Your task to perform on an android device: set the timer Image 0: 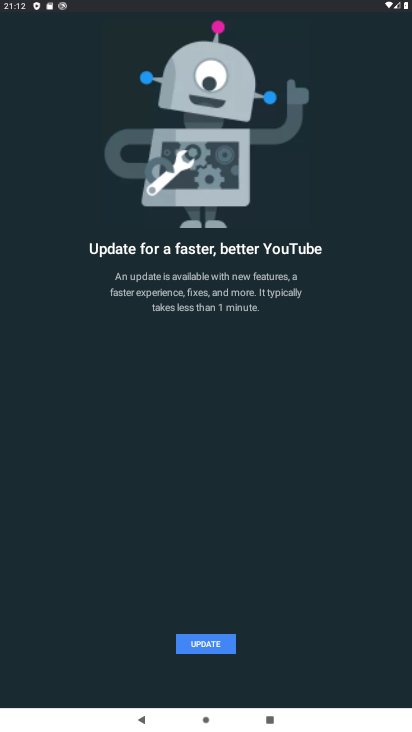
Step 0: press home button
Your task to perform on an android device: set the timer Image 1: 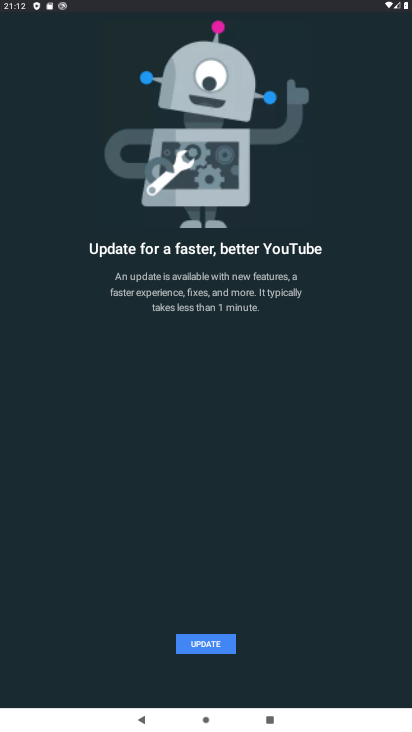
Step 1: press home button
Your task to perform on an android device: set the timer Image 2: 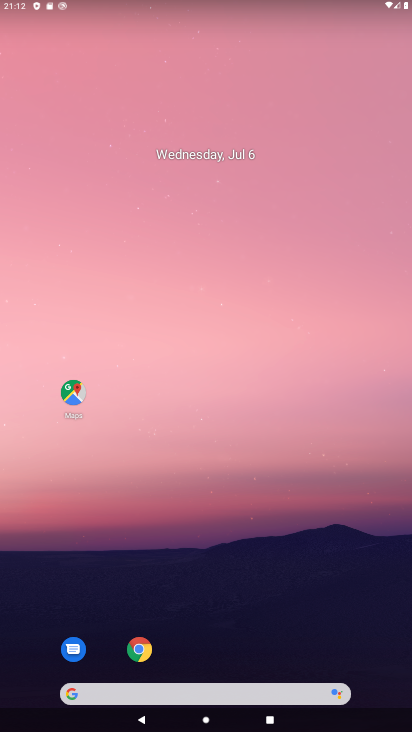
Step 2: drag from (218, 660) to (250, 326)
Your task to perform on an android device: set the timer Image 3: 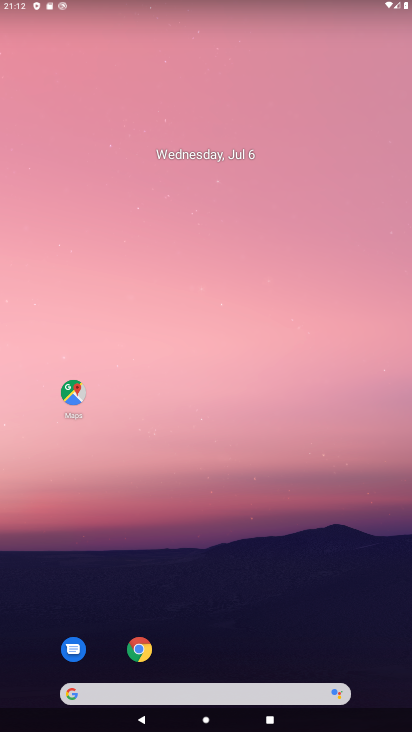
Step 3: drag from (198, 639) to (322, 276)
Your task to perform on an android device: set the timer Image 4: 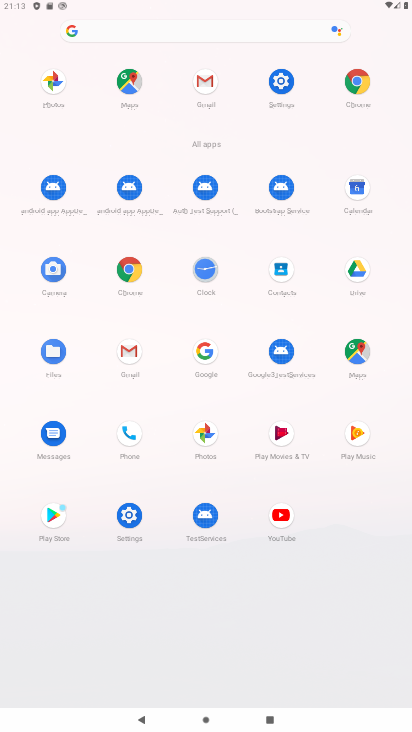
Step 4: click (190, 281)
Your task to perform on an android device: set the timer Image 5: 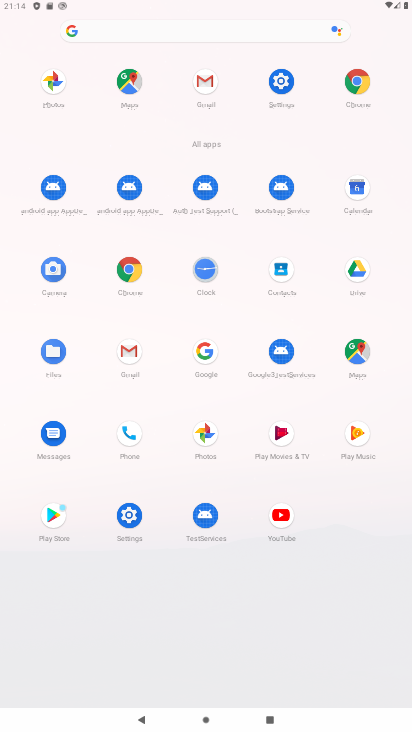
Step 5: click (203, 270)
Your task to perform on an android device: set the timer Image 6: 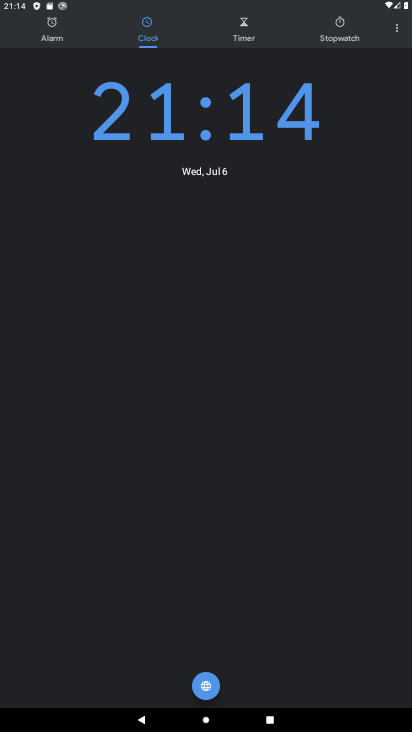
Step 6: click (254, 47)
Your task to perform on an android device: set the timer Image 7: 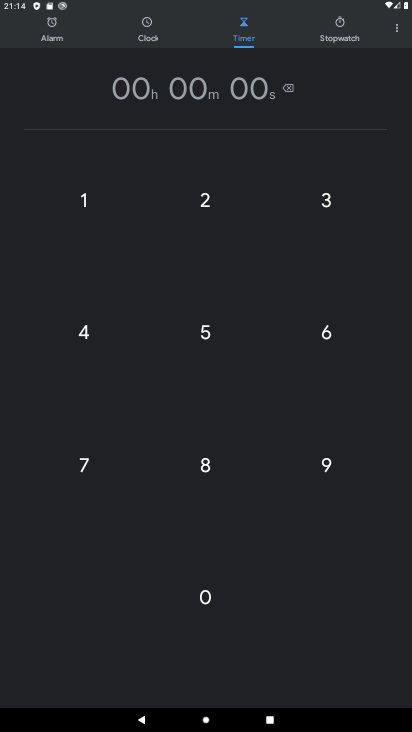
Step 7: click (248, 305)
Your task to perform on an android device: set the timer Image 8: 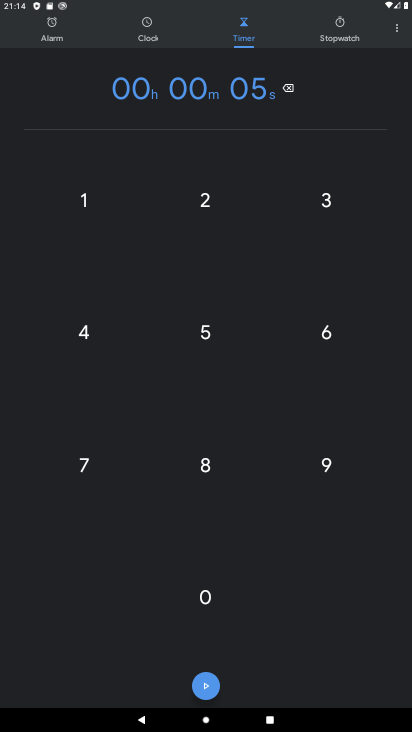
Step 8: click (317, 326)
Your task to perform on an android device: set the timer Image 9: 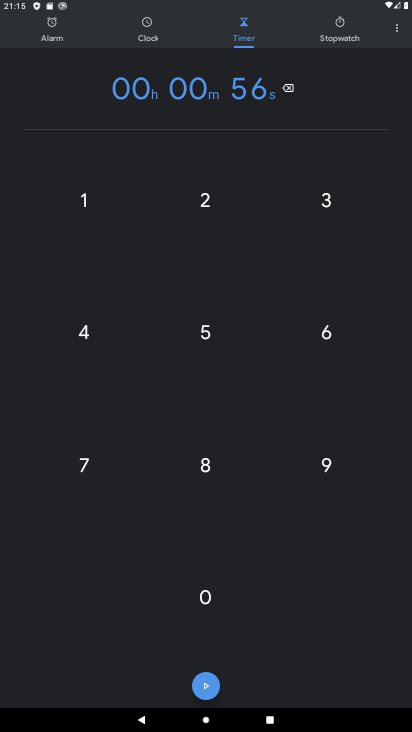
Step 9: task complete